Your task to perform on an android device: toggle sleep mode Image 0: 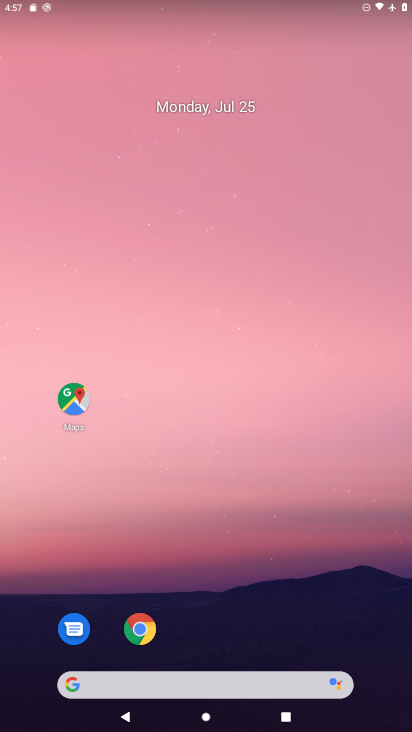
Step 0: drag from (233, 692) to (305, 113)
Your task to perform on an android device: toggle sleep mode Image 1: 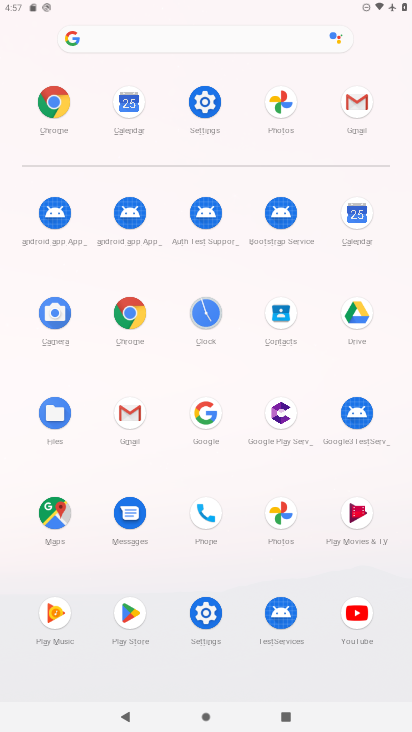
Step 1: click (212, 108)
Your task to perform on an android device: toggle sleep mode Image 2: 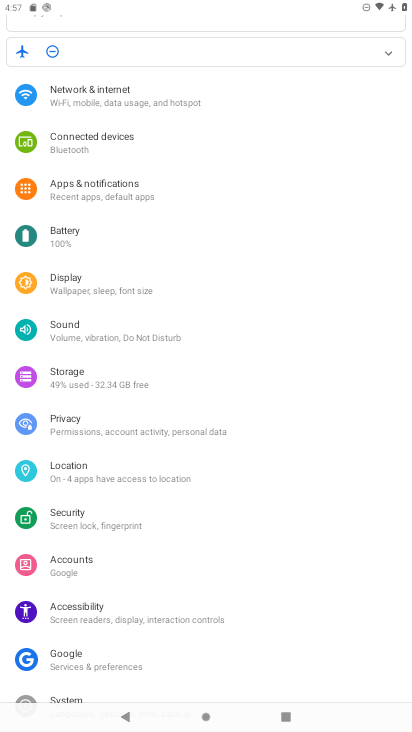
Step 2: click (121, 284)
Your task to perform on an android device: toggle sleep mode Image 3: 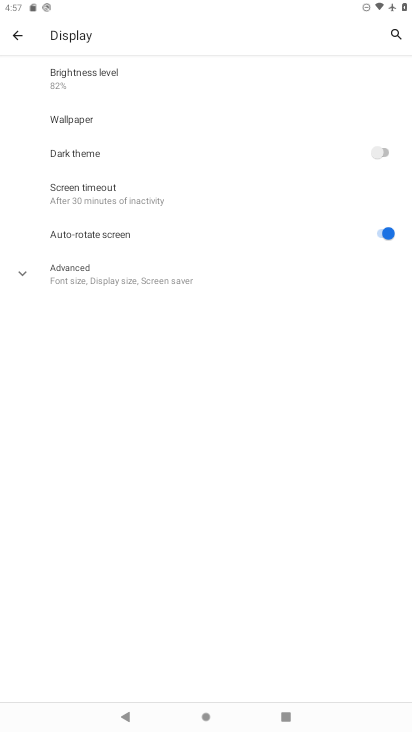
Step 3: task complete